Your task to perform on an android device: Open Youtube and go to the subscriptions tab Image 0: 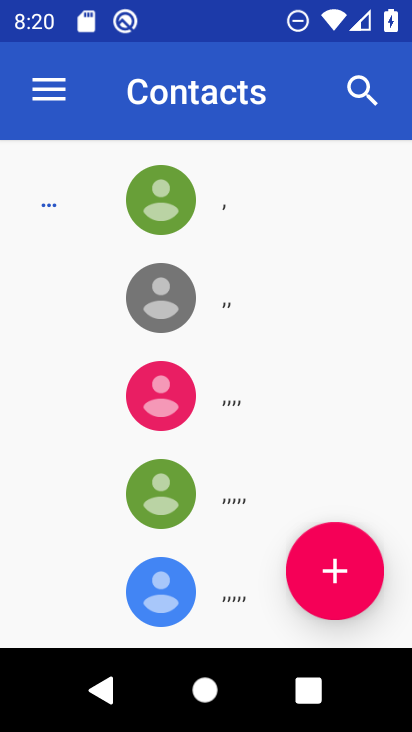
Step 0: press home button
Your task to perform on an android device: Open Youtube and go to the subscriptions tab Image 1: 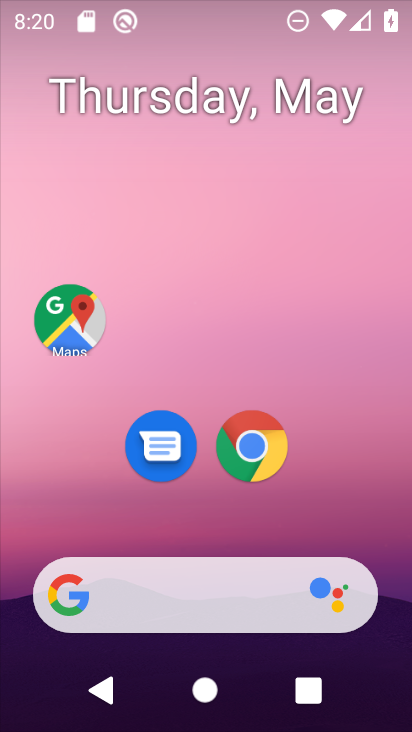
Step 1: drag from (378, 528) to (290, 105)
Your task to perform on an android device: Open Youtube and go to the subscriptions tab Image 2: 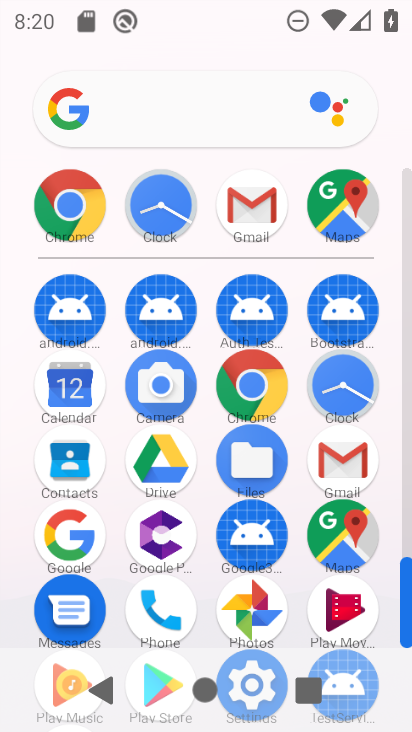
Step 2: drag from (197, 582) to (201, 268)
Your task to perform on an android device: Open Youtube and go to the subscriptions tab Image 3: 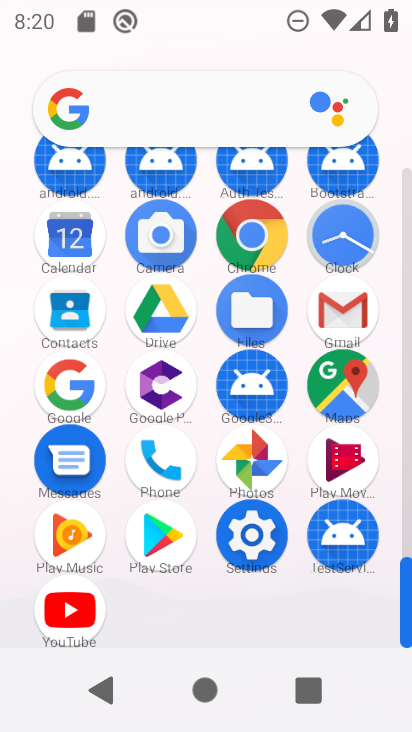
Step 3: click (79, 615)
Your task to perform on an android device: Open Youtube and go to the subscriptions tab Image 4: 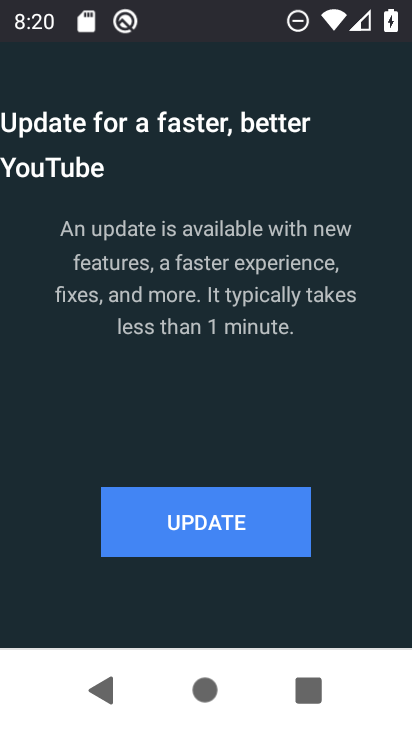
Step 4: click (205, 528)
Your task to perform on an android device: Open Youtube and go to the subscriptions tab Image 5: 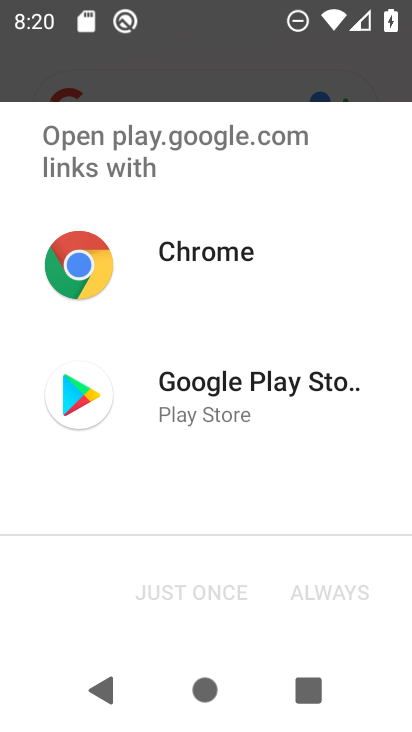
Step 5: click (248, 395)
Your task to perform on an android device: Open Youtube and go to the subscriptions tab Image 6: 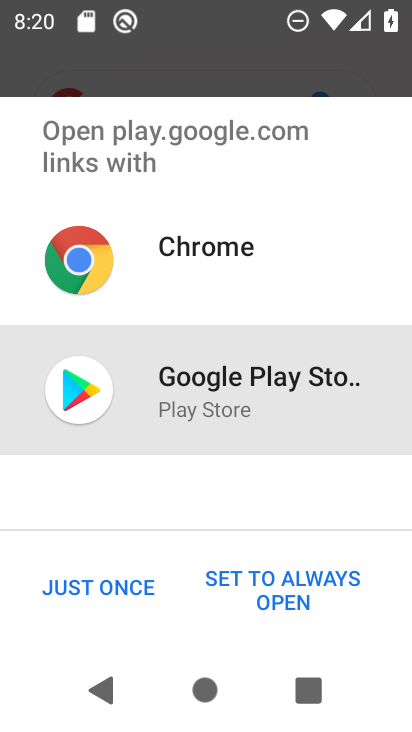
Step 6: click (90, 598)
Your task to perform on an android device: Open Youtube and go to the subscriptions tab Image 7: 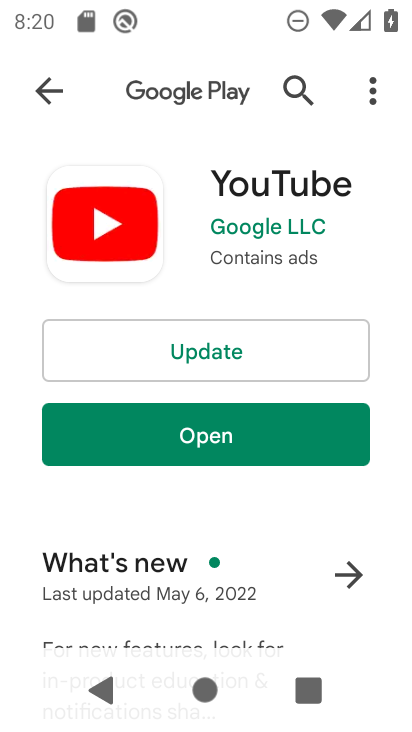
Step 7: click (202, 350)
Your task to perform on an android device: Open Youtube and go to the subscriptions tab Image 8: 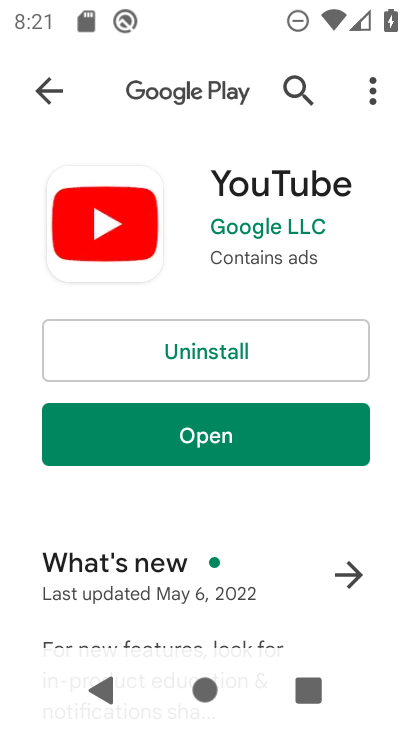
Step 8: click (234, 437)
Your task to perform on an android device: Open Youtube and go to the subscriptions tab Image 9: 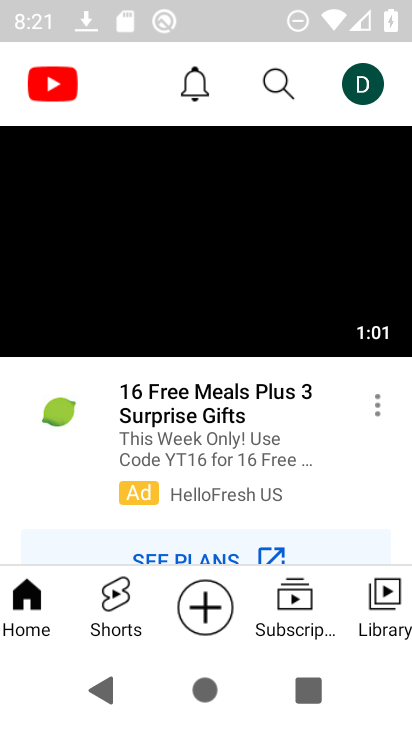
Step 9: click (304, 613)
Your task to perform on an android device: Open Youtube and go to the subscriptions tab Image 10: 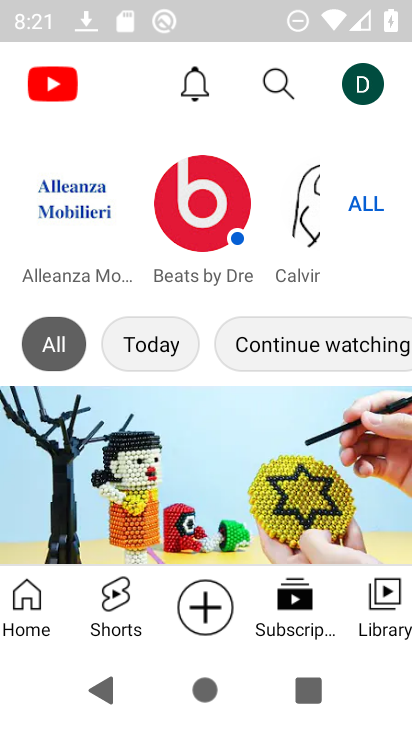
Step 10: task complete